Your task to perform on an android device: Go to location settings Image 0: 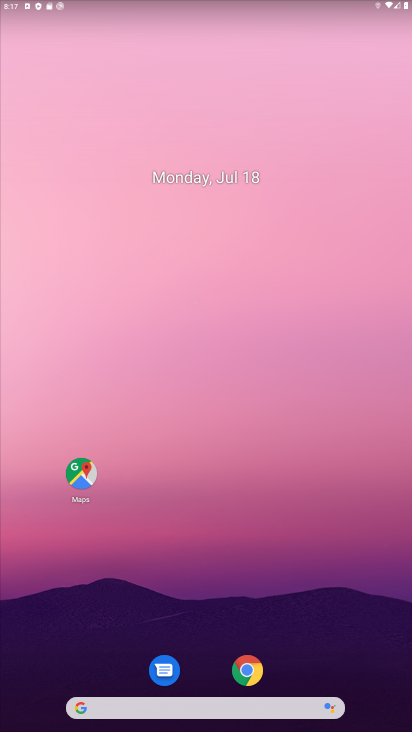
Step 0: drag from (195, 674) to (183, 199)
Your task to perform on an android device: Go to location settings Image 1: 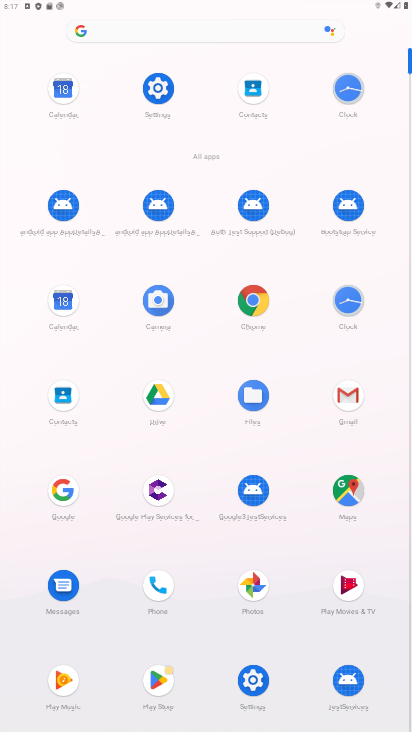
Step 1: click (150, 85)
Your task to perform on an android device: Go to location settings Image 2: 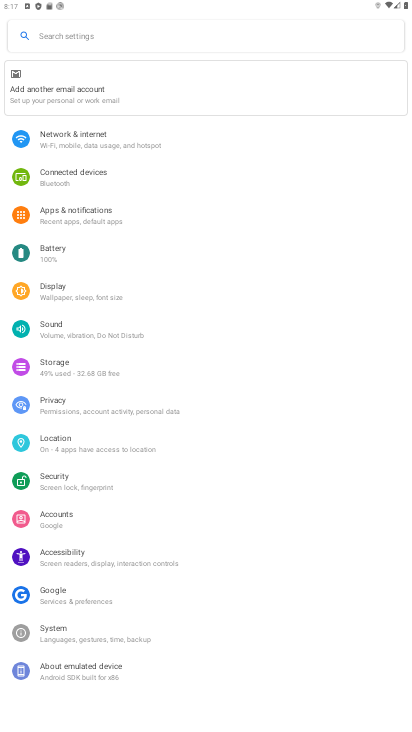
Step 2: click (54, 446)
Your task to perform on an android device: Go to location settings Image 3: 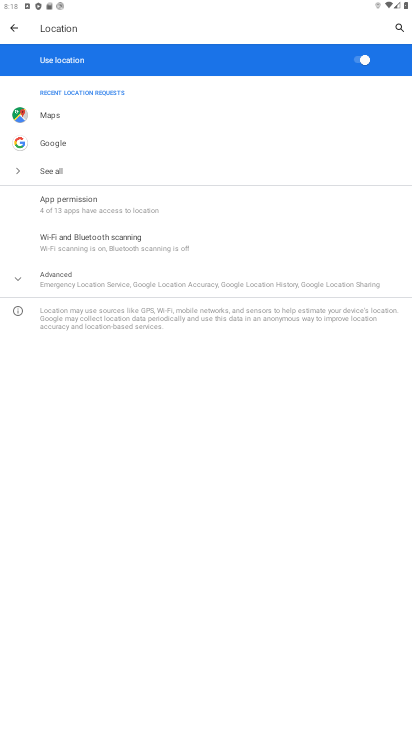
Step 3: task complete